Your task to perform on an android device: Is it going to rain tomorrow? Image 0: 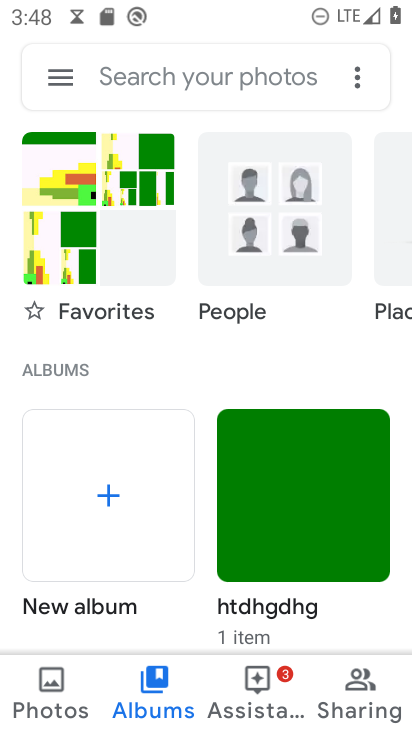
Step 0: press home button
Your task to perform on an android device: Is it going to rain tomorrow? Image 1: 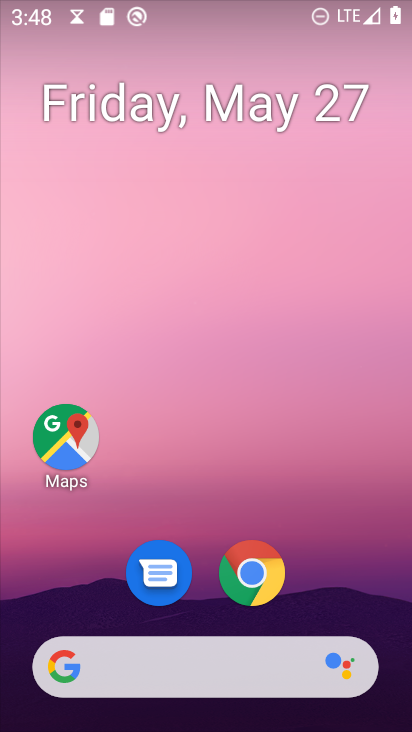
Step 1: click (210, 657)
Your task to perform on an android device: Is it going to rain tomorrow? Image 2: 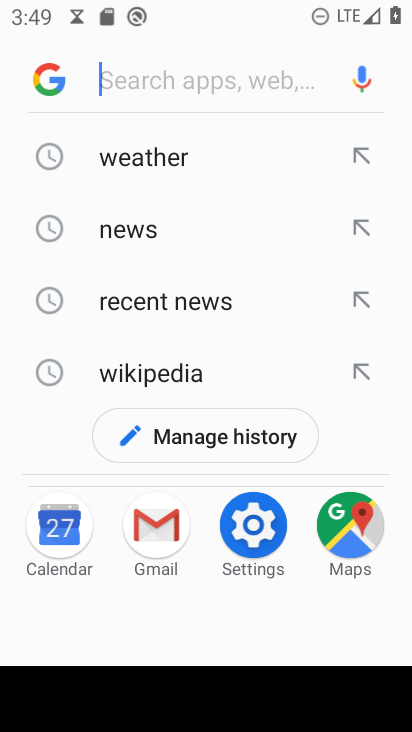
Step 2: type "is it going to rain tomorrow"
Your task to perform on an android device: Is it going to rain tomorrow? Image 3: 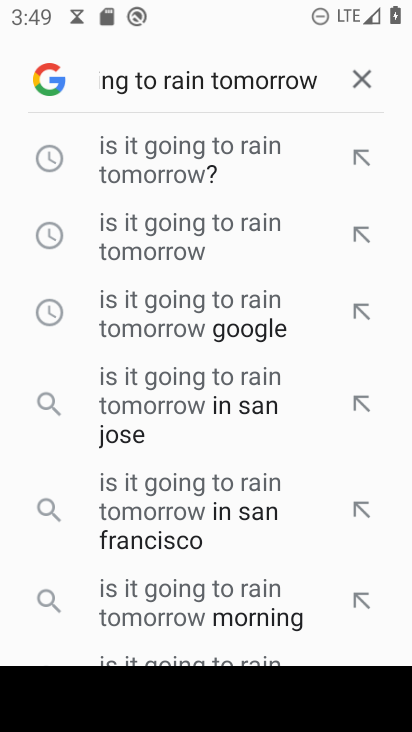
Step 3: click (166, 161)
Your task to perform on an android device: Is it going to rain tomorrow? Image 4: 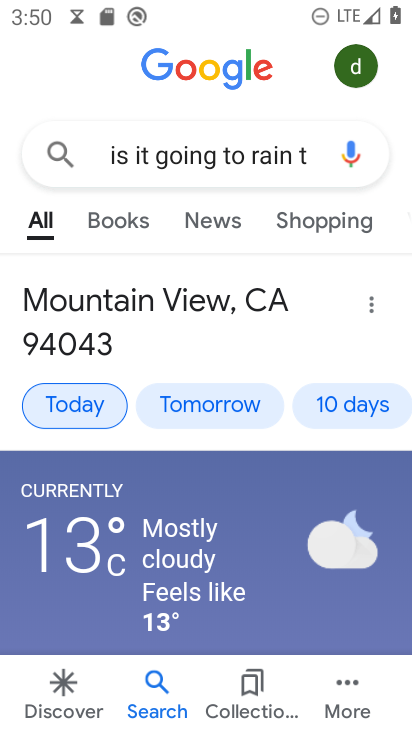
Step 4: drag from (224, 533) to (247, 289)
Your task to perform on an android device: Is it going to rain tomorrow? Image 5: 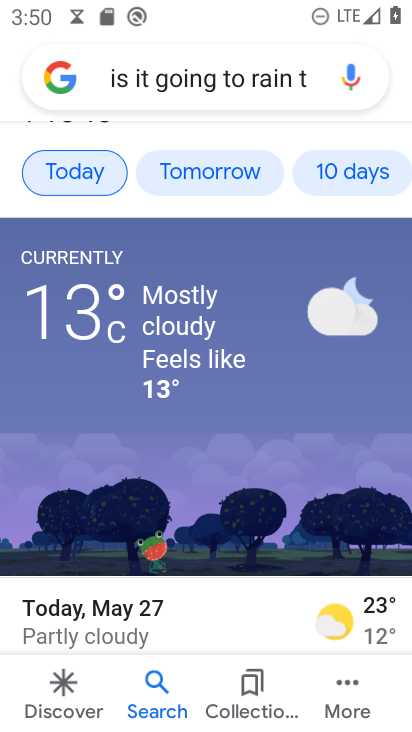
Step 5: click (228, 171)
Your task to perform on an android device: Is it going to rain tomorrow? Image 6: 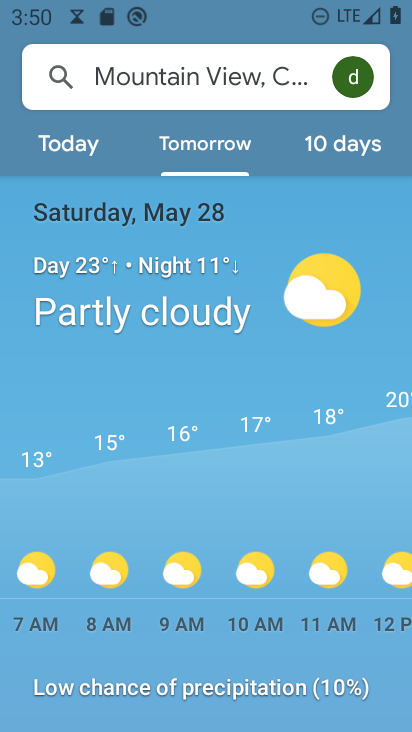
Step 6: task complete